Your task to perform on an android device: Search for sushi restaurants on Maps Image 0: 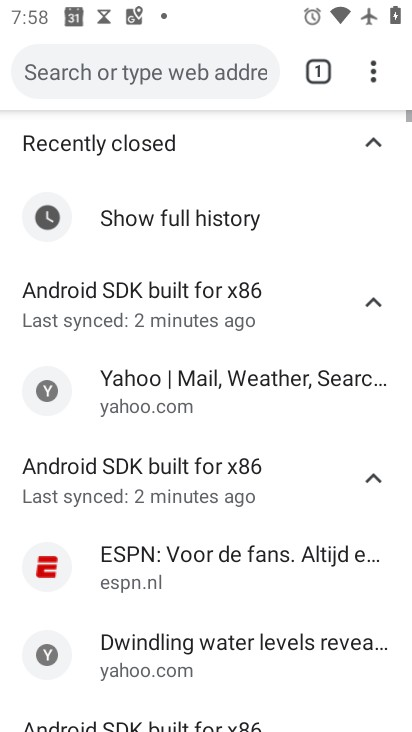
Step 0: press home button
Your task to perform on an android device: Search for sushi restaurants on Maps Image 1: 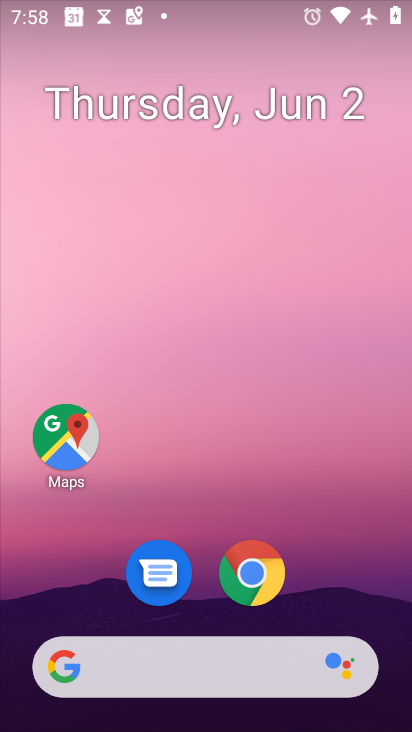
Step 1: click (61, 450)
Your task to perform on an android device: Search for sushi restaurants on Maps Image 2: 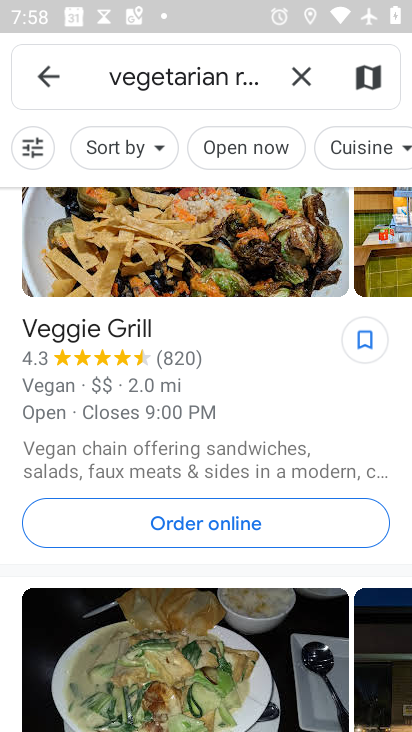
Step 2: click (295, 73)
Your task to perform on an android device: Search for sushi restaurants on Maps Image 3: 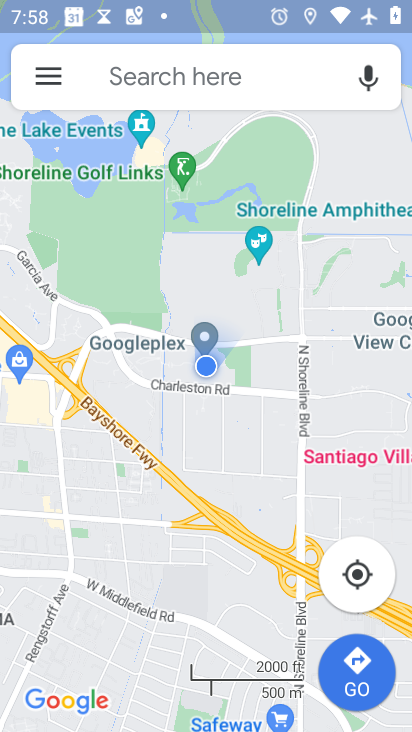
Step 3: click (160, 68)
Your task to perform on an android device: Search for sushi restaurants on Maps Image 4: 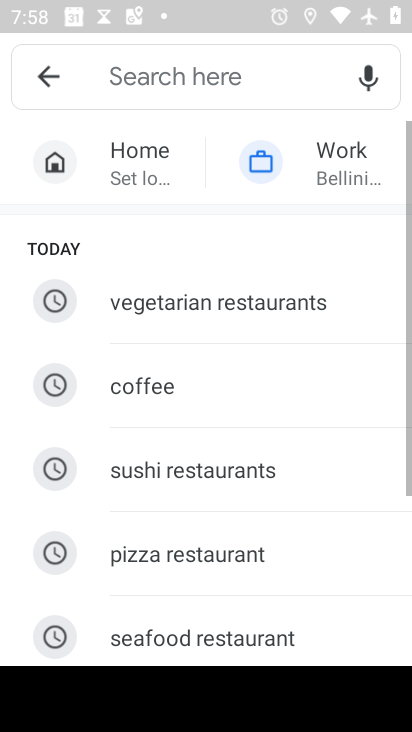
Step 4: click (211, 476)
Your task to perform on an android device: Search for sushi restaurants on Maps Image 5: 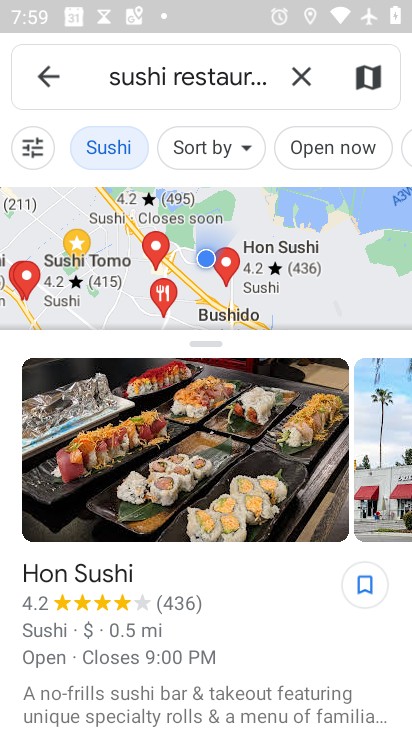
Step 5: task complete